Your task to perform on an android device: Open accessibility settings Image 0: 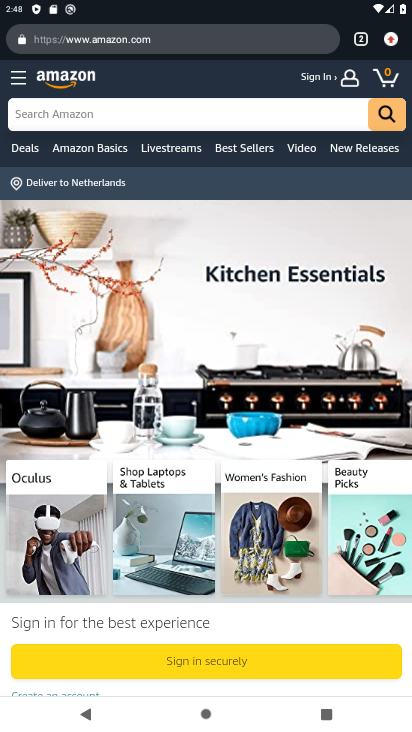
Step 0: press home button
Your task to perform on an android device: Open accessibility settings Image 1: 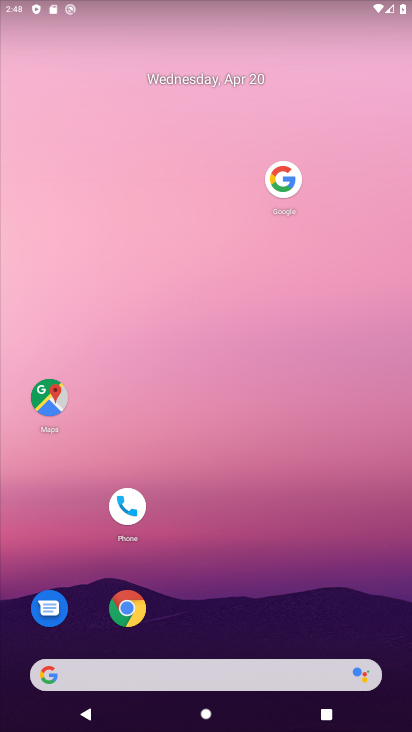
Step 1: drag from (289, 586) to (338, 201)
Your task to perform on an android device: Open accessibility settings Image 2: 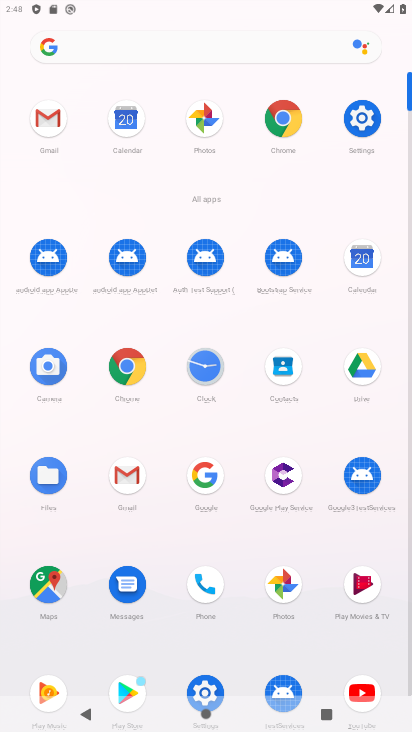
Step 2: click (360, 127)
Your task to perform on an android device: Open accessibility settings Image 3: 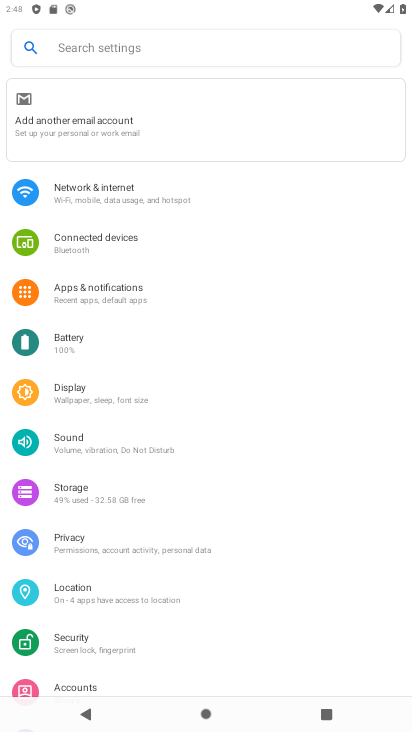
Step 3: drag from (155, 564) to (227, 150)
Your task to perform on an android device: Open accessibility settings Image 4: 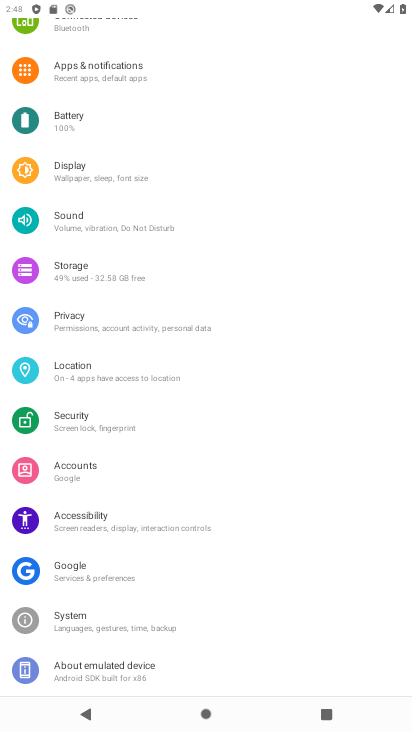
Step 4: drag from (168, 570) to (245, 399)
Your task to perform on an android device: Open accessibility settings Image 5: 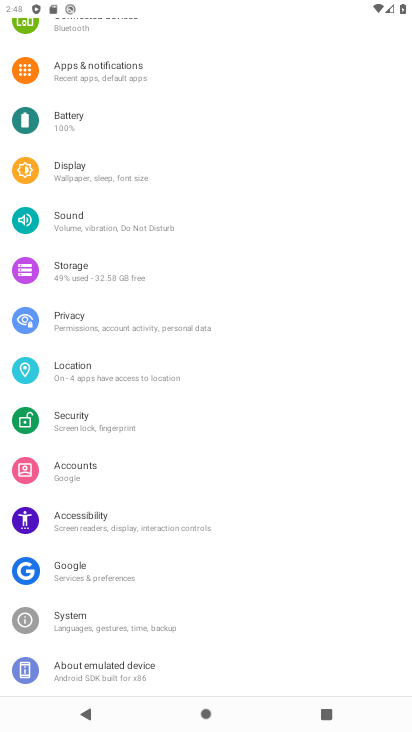
Step 5: click (169, 522)
Your task to perform on an android device: Open accessibility settings Image 6: 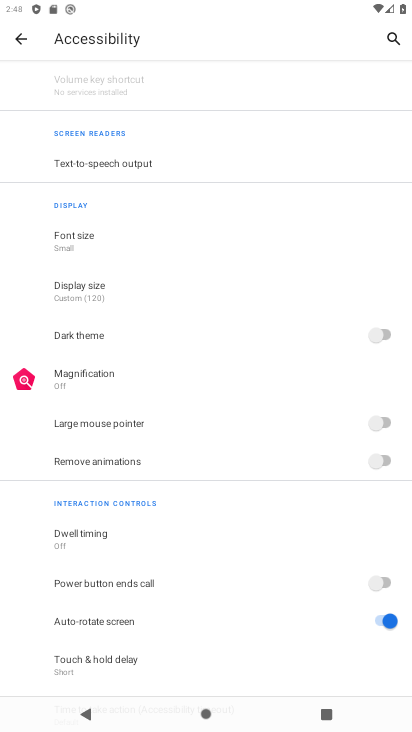
Step 6: task complete